Your task to perform on an android device: Do I have any events today? Image 0: 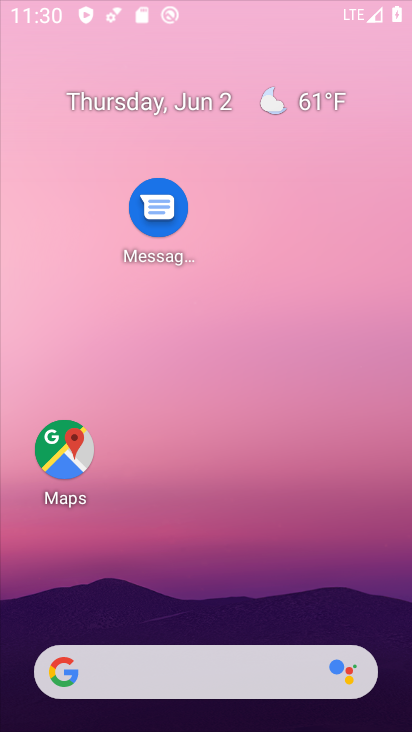
Step 0: drag from (204, 654) to (175, 78)
Your task to perform on an android device: Do I have any events today? Image 1: 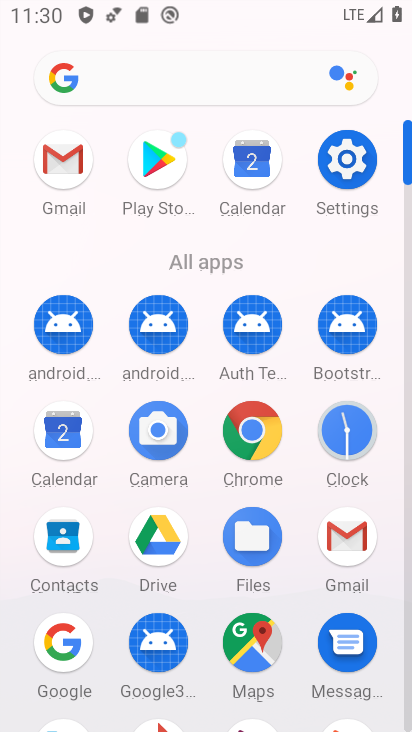
Step 1: click (48, 452)
Your task to perform on an android device: Do I have any events today? Image 2: 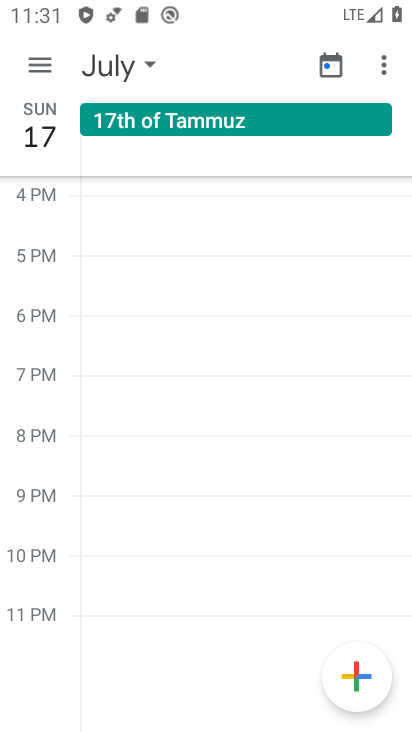
Step 2: click (318, 73)
Your task to perform on an android device: Do I have any events today? Image 3: 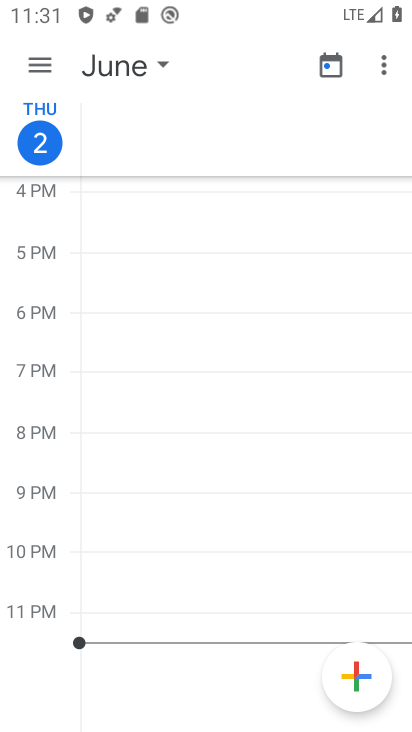
Step 3: click (44, 124)
Your task to perform on an android device: Do I have any events today? Image 4: 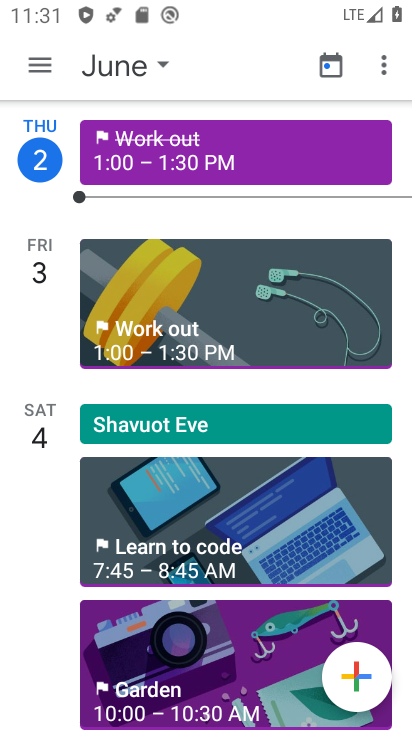
Step 4: task complete